Your task to perform on an android device: Add "razer deathadder" to the cart on newegg.com Image 0: 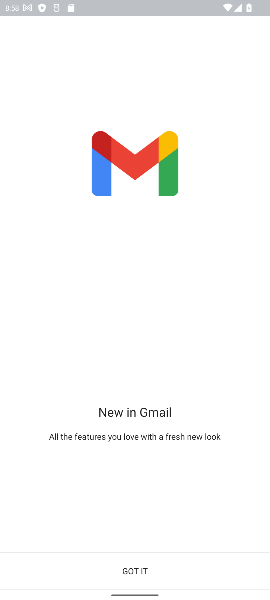
Step 0: press home button
Your task to perform on an android device: Add "razer deathadder" to the cart on newegg.com Image 1: 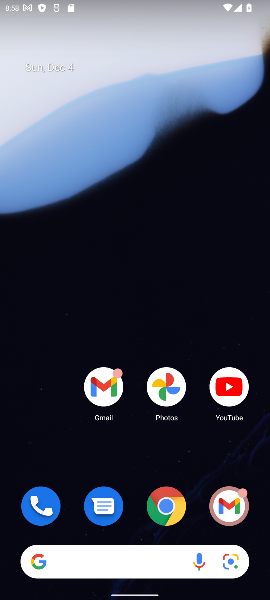
Step 1: click (165, 509)
Your task to perform on an android device: Add "razer deathadder" to the cart on newegg.com Image 2: 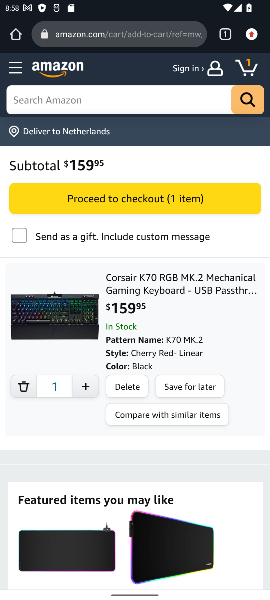
Step 2: click (68, 38)
Your task to perform on an android device: Add "razer deathadder" to the cart on newegg.com Image 3: 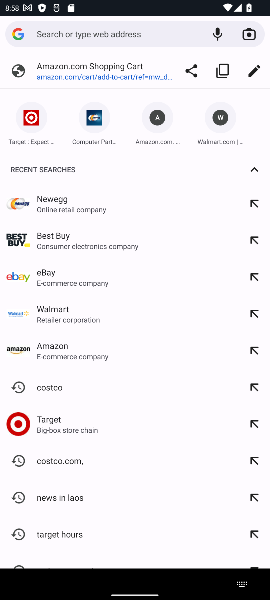
Step 3: click (44, 202)
Your task to perform on an android device: Add "razer deathadder" to the cart on newegg.com Image 4: 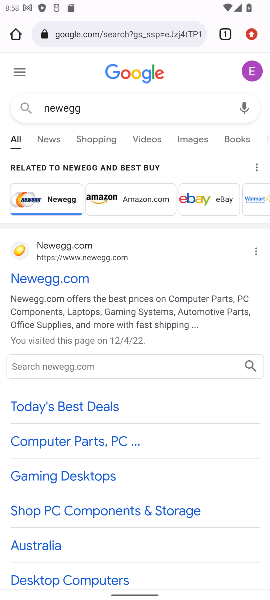
Step 4: click (38, 272)
Your task to perform on an android device: Add "razer deathadder" to the cart on newegg.com Image 5: 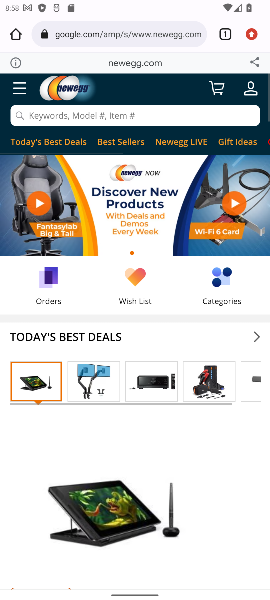
Step 5: click (65, 116)
Your task to perform on an android device: Add "razer deathadder" to the cart on newegg.com Image 6: 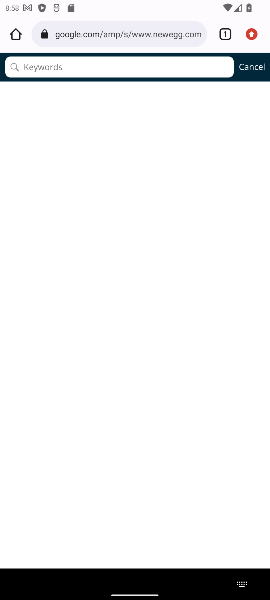
Step 6: click (100, 65)
Your task to perform on an android device: Add "razer deathadder" to the cart on newegg.com Image 7: 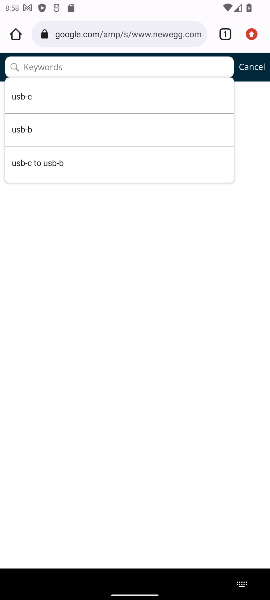
Step 7: type "razer deathadder"
Your task to perform on an android device: Add "razer deathadder" to the cart on newegg.com Image 8: 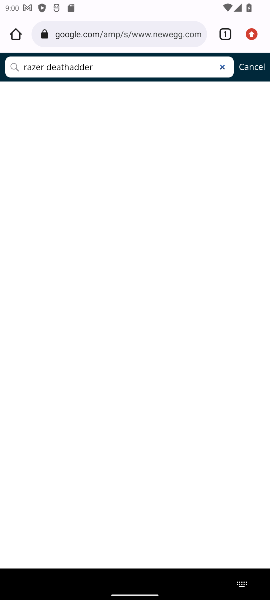
Step 8: task complete